Your task to perform on an android device: turn pop-ups off in chrome Image 0: 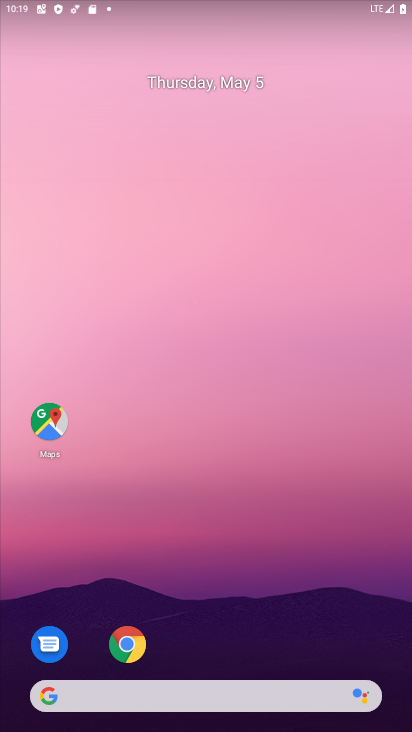
Step 0: click (124, 645)
Your task to perform on an android device: turn pop-ups off in chrome Image 1: 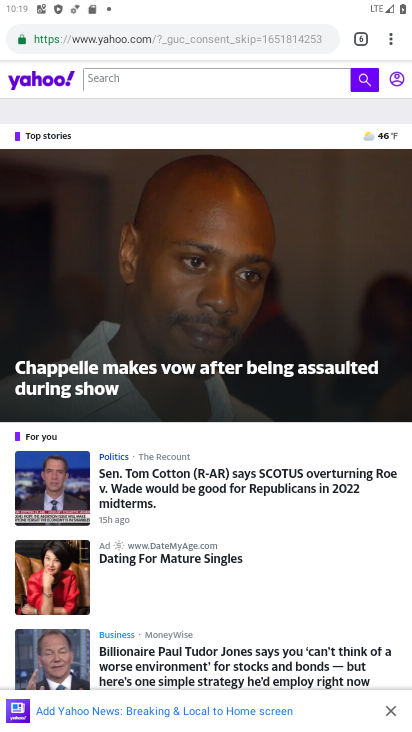
Step 1: click (389, 37)
Your task to perform on an android device: turn pop-ups off in chrome Image 2: 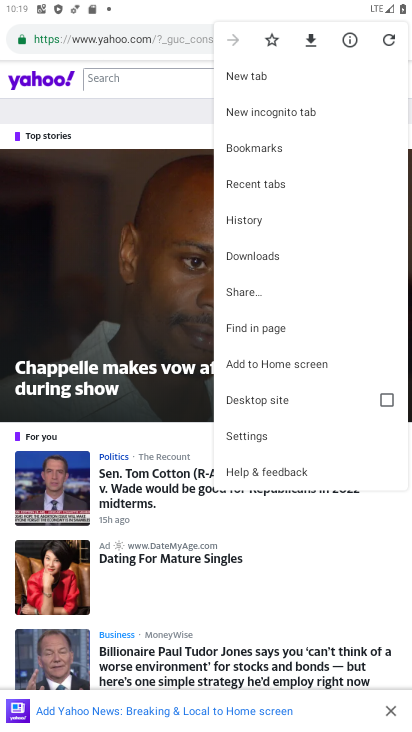
Step 2: click (236, 428)
Your task to perform on an android device: turn pop-ups off in chrome Image 3: 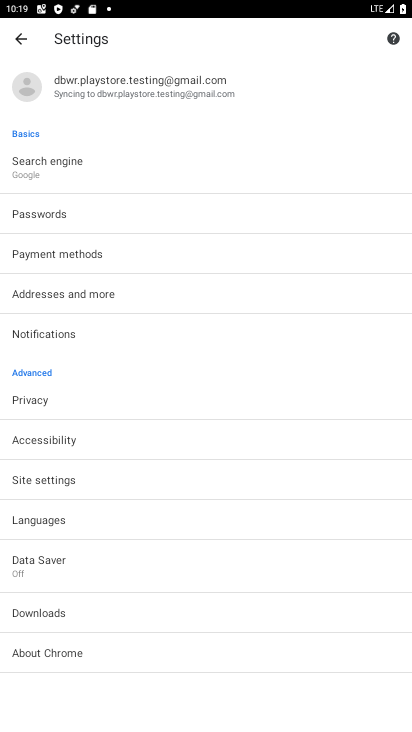
Step 3: click (48, 489)
Your task to perform on an android device: turn pop-ups off in chrome Image 4: 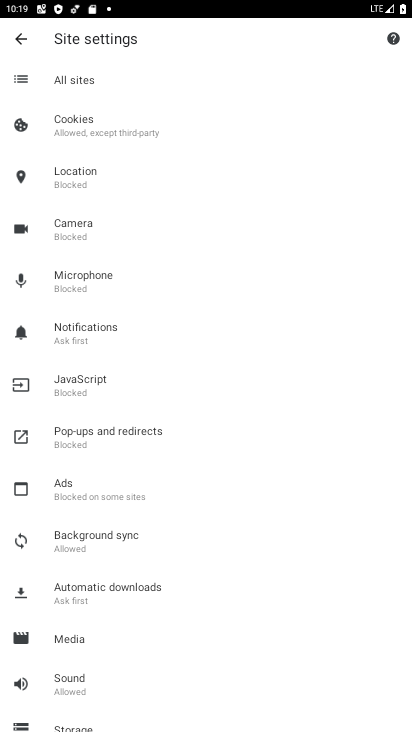
Step 4: click (104, 442)
Your task to perform on an android device: turn pop-ups off in chrome Image 5: 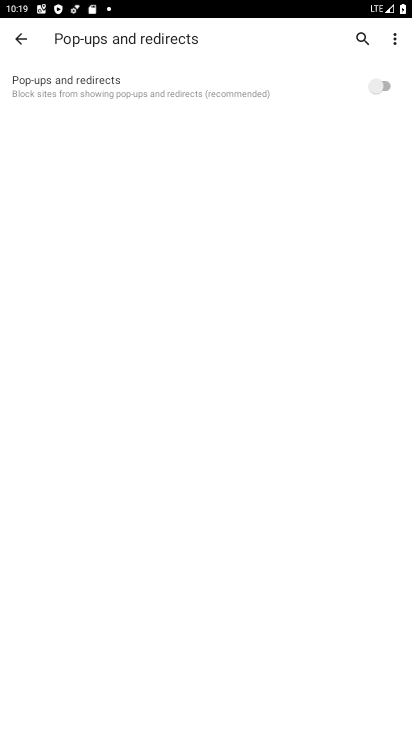
Step 5: task complete